Your task to perform on an android device: stop showing notifications on the lock screen Image 0: 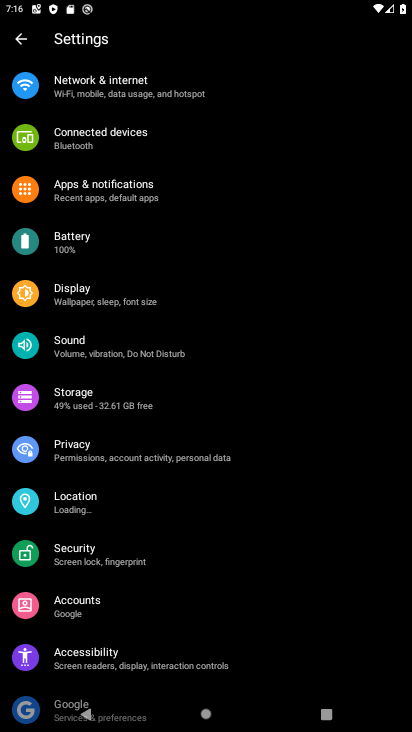
Step 0: press home button
Your task to perform on an android device: stop showing notifications on the lock screen Image 1: 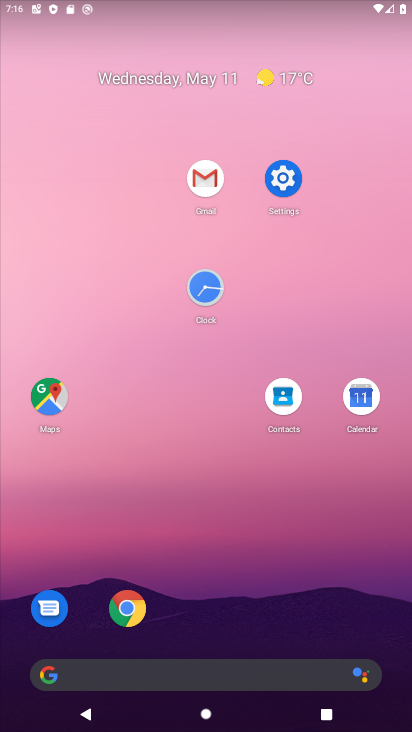
Step 1: drag from (226, 606) to (261, 243)
Your task to perform on an android device: stop showing notifications on the lock screen Image 2: 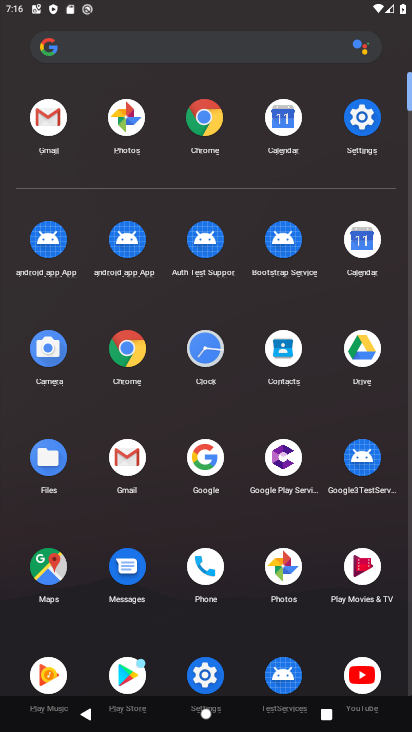
Step 2: click (402, 133)
Your task to perform on an android device: stop showing notifications on the lock screen Image 3: 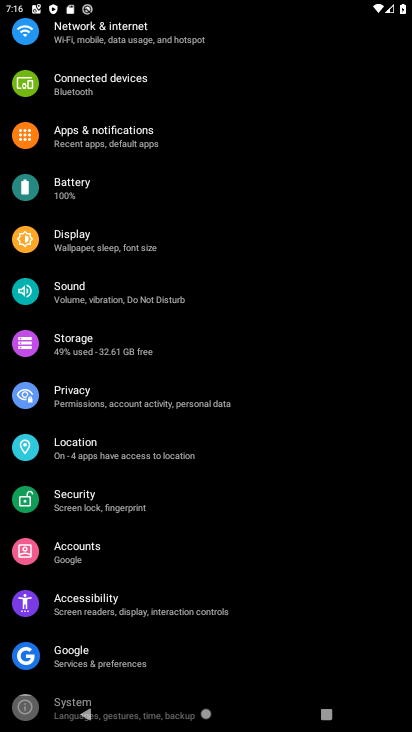
Step 3: click (172, 159)
Your task to perform on an android device: stop showing notifications on the lock screen Image 4: 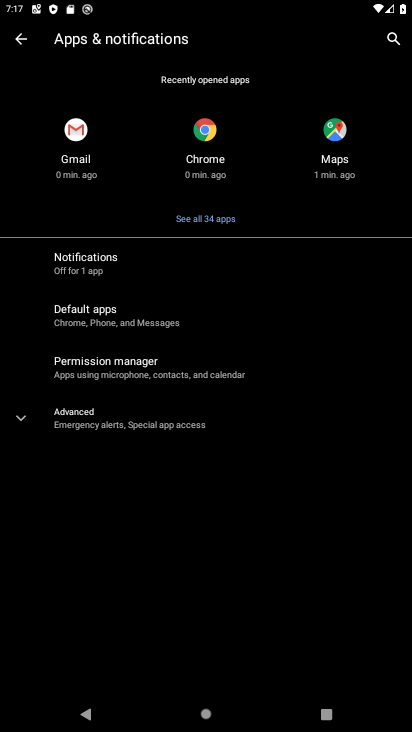
Step 4: click (134, 272)
Your task to perform on an android device: stop showing notifications on the lock screen Image 5: 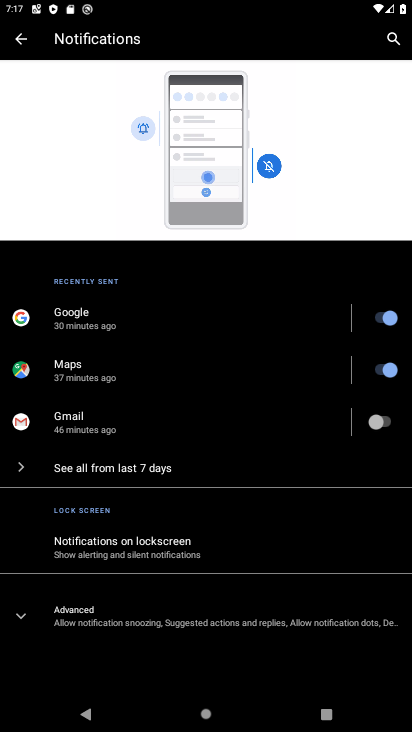
Step 5: click (170, 542)
Your task to perform on an android device: stop showing notifications on the lock screen Image 6: 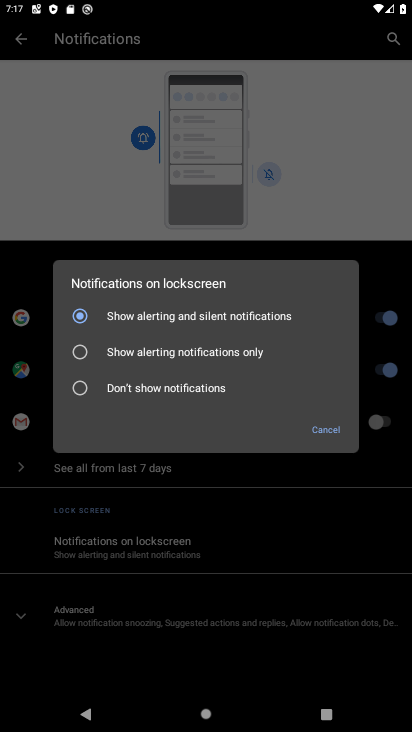
Step 6: click (211, 353)
Your task to perform on an android device: stop showing notifications on the lock screen Image 7: 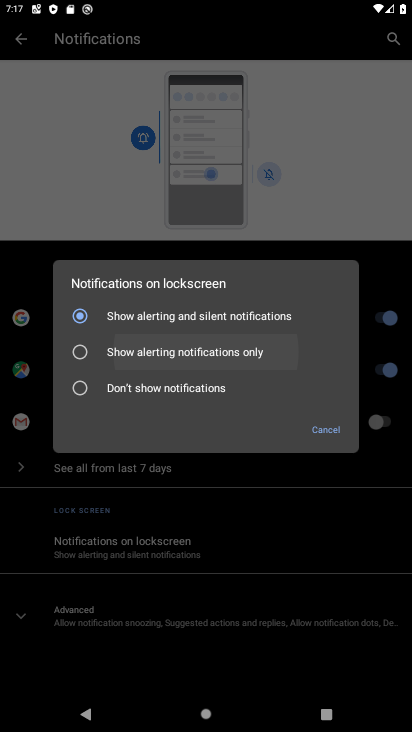
Step 7: click (211, 353)
Your task to perform on an android device: stop showing notifications on the lock screen Image 8: 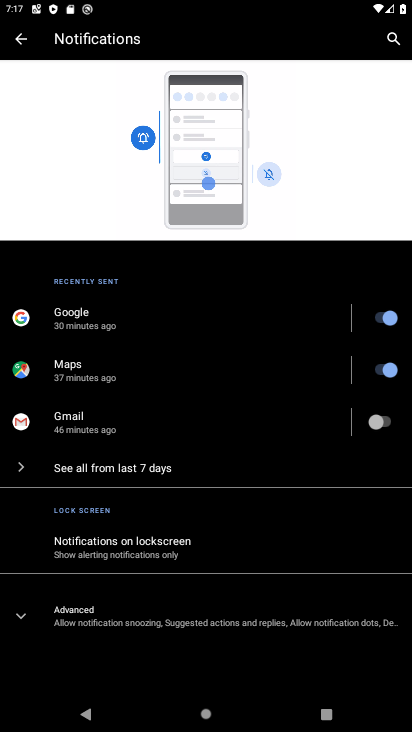
Step 8: click (171, 537)
Your task to perform on an android device: stop showing notifications on the lock screen Image 9: 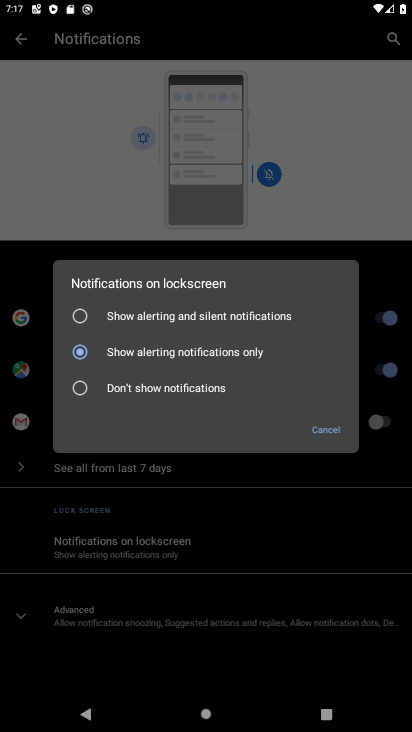
Step 9: click (172, 383)
Your task to perform on an android device: stop showing notifications on the lock screen Image 10: 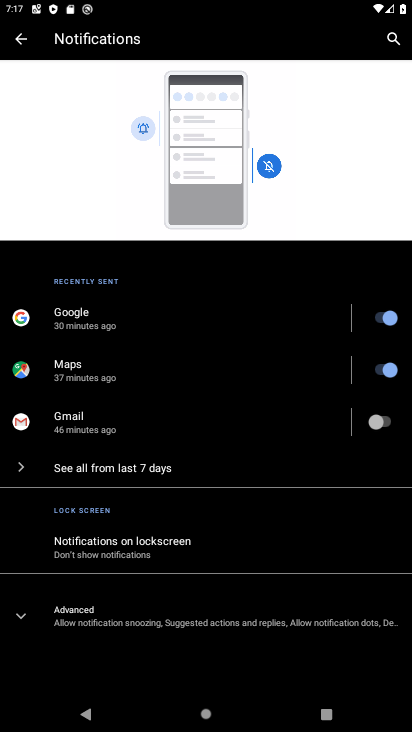
Step 10: task complete